Your task to perform on an android device: Search for sushi restaurants on Maps Image 0: 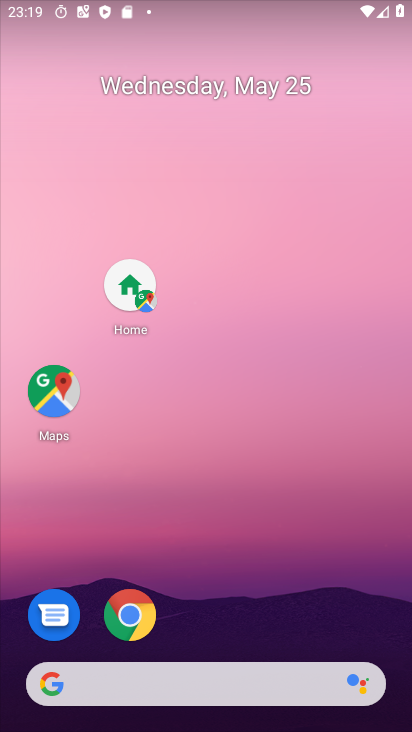
Step 0: press home button
Your task to perform on an android device: Search for sushi restaurants on Maps Image 1: 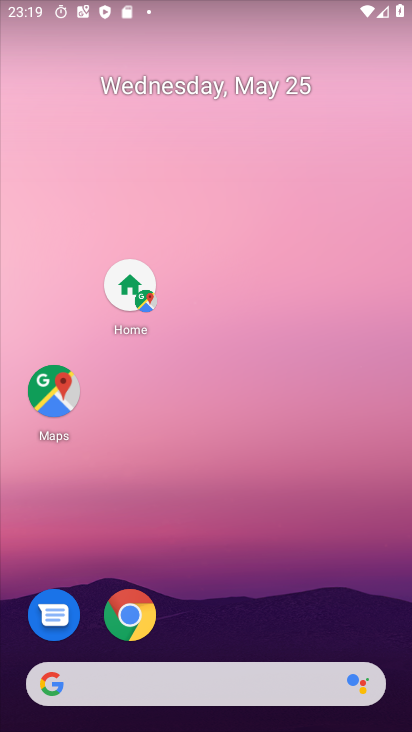
Step 1: click (48, 391)
Your task to perform on an android device: Search for sushi restaurants on Maps Image 2: 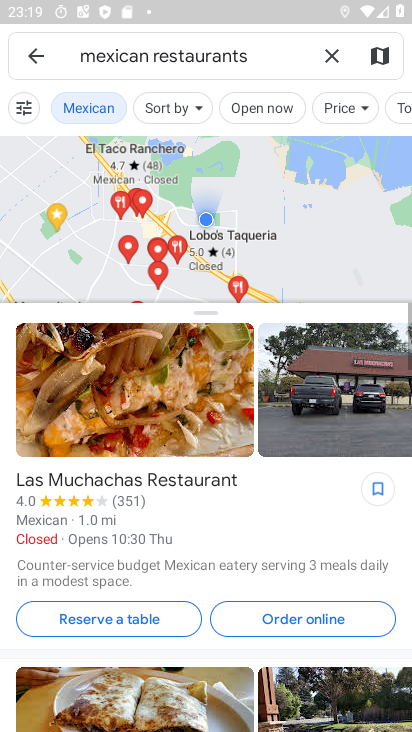
Step 2: click (332, 59)
Your task to perform on an android device: Search for sushi restaurants on Maps Image 3: 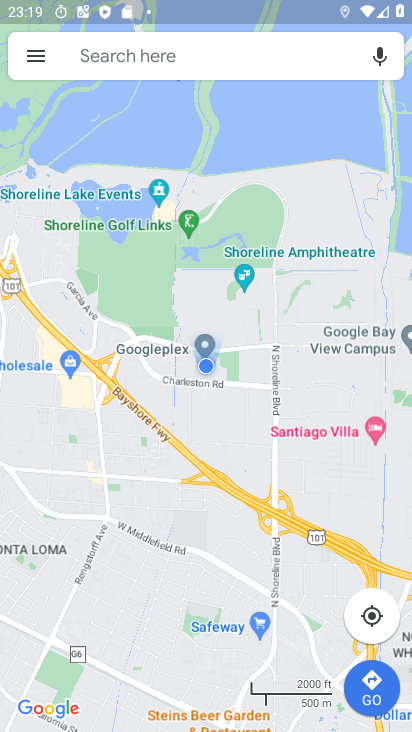
Step 3: click (234, 58)
Your task to perform on an android device: Search for sushi restaurants on Maps Image 4: 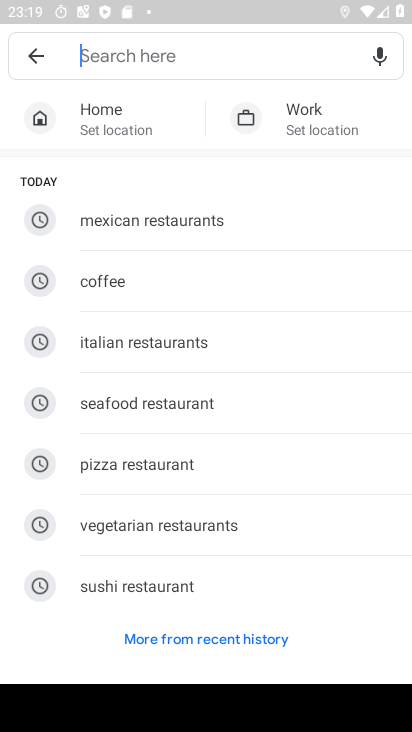
Step 4: click (145, 592)
Your task to perform on an android device: Search for sushi restaurants on Maps Image 5: 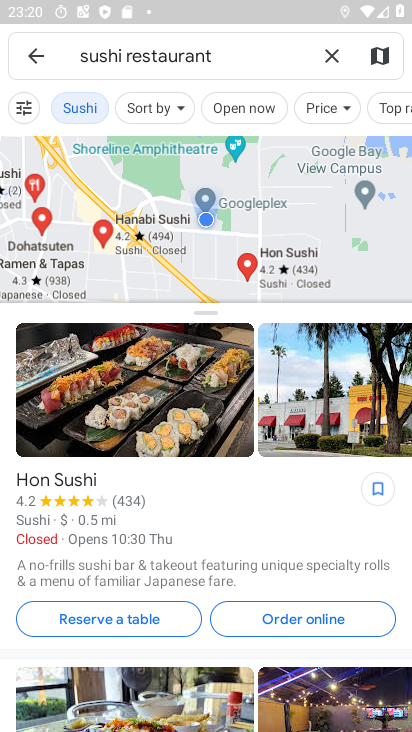
Step 5: task complete